Your task to perform on an android device: Open Wikipedia Image 0: 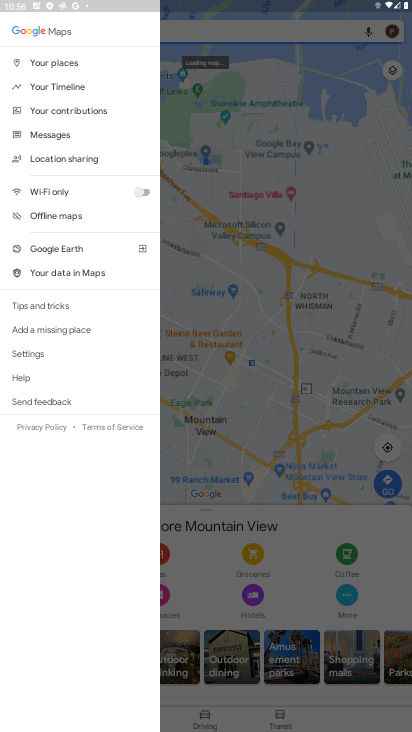
Step 0: click (270, 557)
Your task to perform on an android device: Open Wikipedia Image 1: 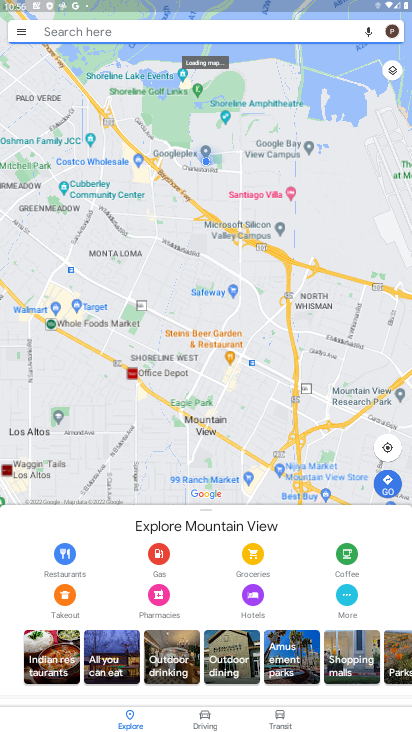
Step 1: click (286, 40)
Your task to perform on an android device: Open Wikipedia Image 2: 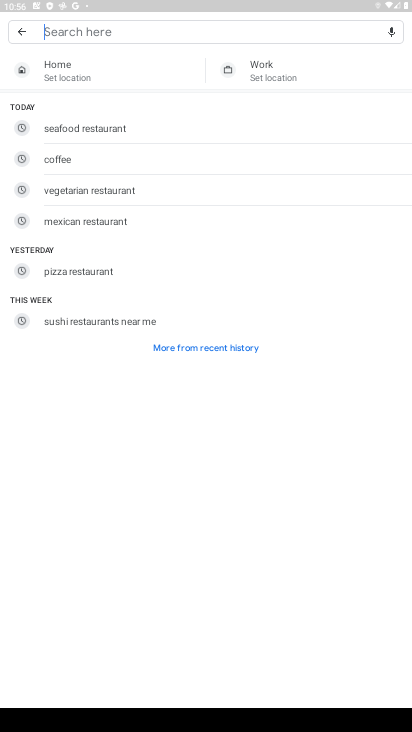
Step 2: press home button
Your task to perform on an android device: Open Wikipedia Image 3: 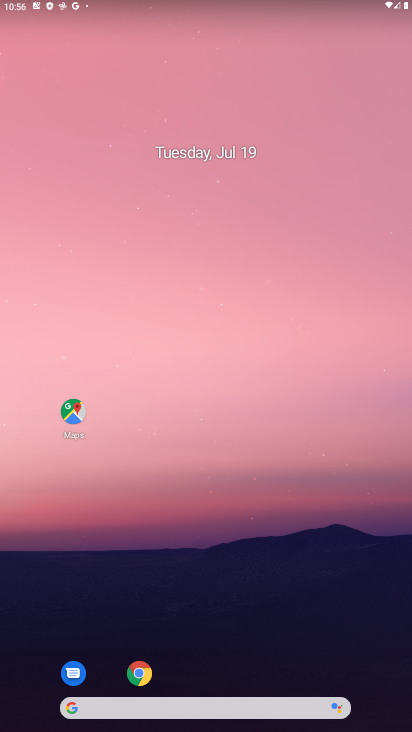
Step 3: drag from (267, 676) to (263, 260)
Your task to perform on an android device: Open Wikipedia Image 4: 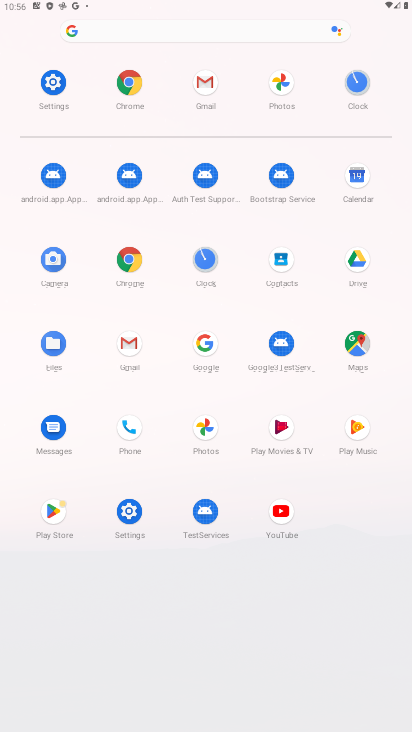
Step 4: click (196, 24)
Your task to perform on an android device: Open Wikipedia Image 5: 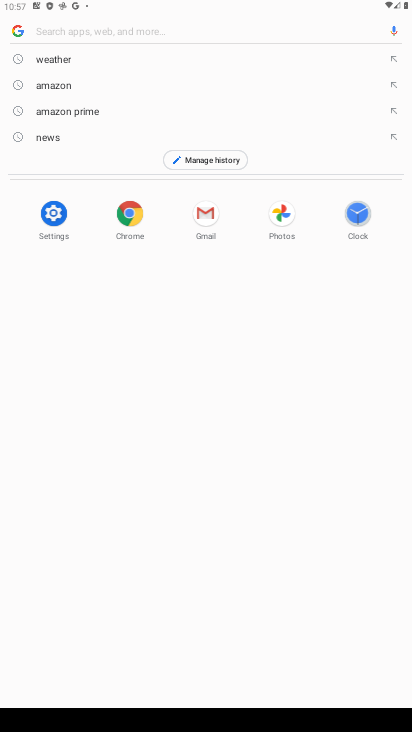
Step 5: type "wikipedia"
Your task to perform on an android device: Open Wikipedia Image 6: 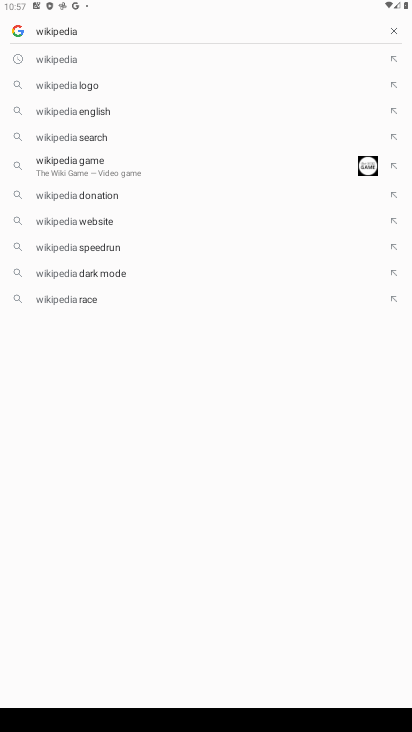
Step 6: click (99, 65)
Your task to perform on an android device: Open Wikipedia Image 7: 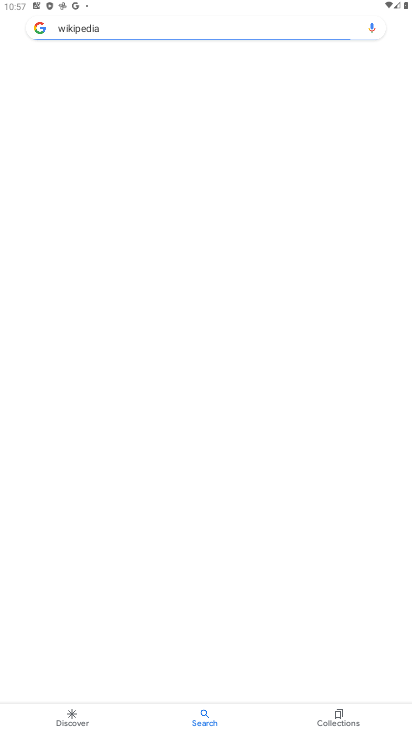
Step 7: task complete